Your task to perform on an android device: Open calendar and show me the second week of next month Image 0: 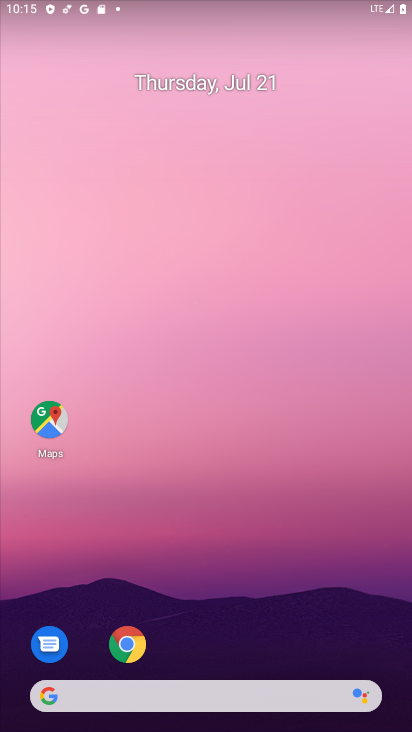
Step 0: drag from (228, 657) to (281, 56)
Your task to perform on an android device: Open calendar and show me the second week of next month Image 1: 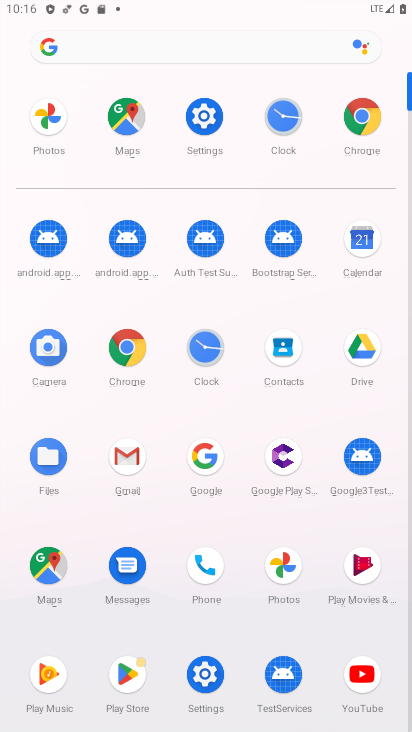
Step 1: click (364, 240)
Your task to perform on an android device: Open calendar and show me the second week of next month Image 2: 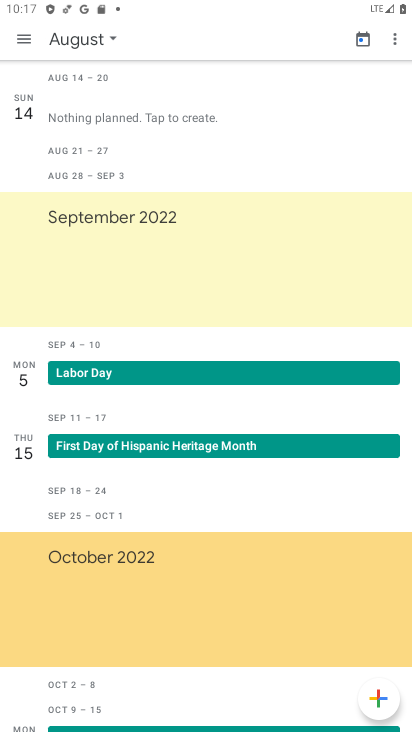
Step 2: click (113, 38)
Your task to perform on an android device: Open calendar and show me the second week of next month Image 3: 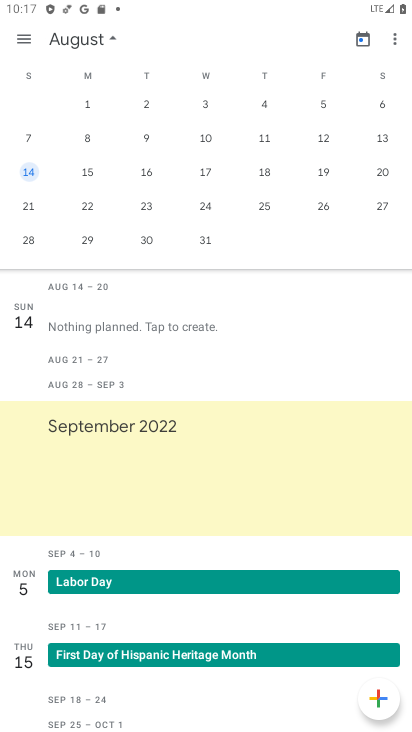
Step 3: click (28, 131)
Your task to perform on an android device: Open calendar and show me the second week of next month Image 4: 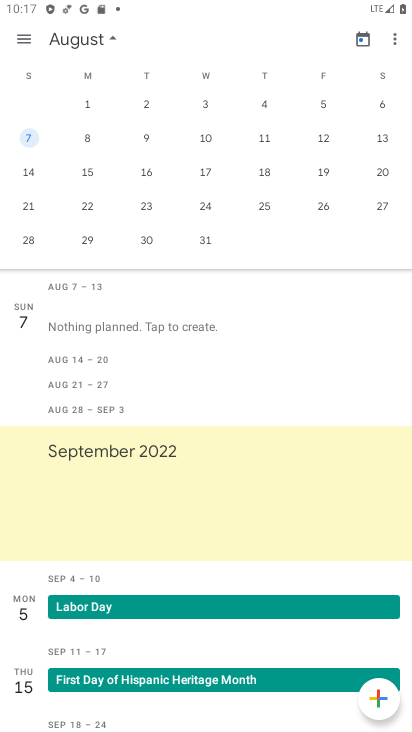
Step 4: click (112, 34)
Your task to perform on an android device: Open calendar and show me the second week of next month Image 5: 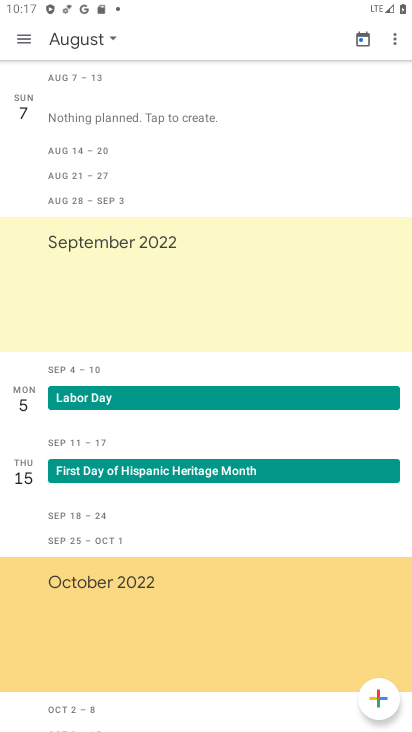
Step 5: click (13, 38)
Your task to perform on an android device: Open calendar and show me the second week of next month Image 6: 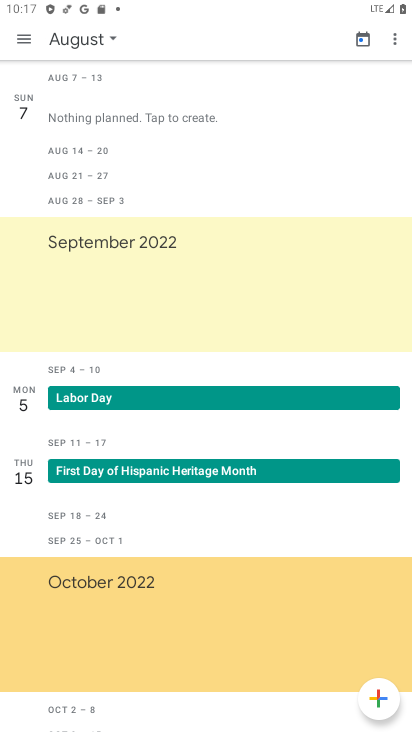
Step 6: click (24, 36)
Your task to perform on an android device: Open calendar and show me the second week of next month Image 7: 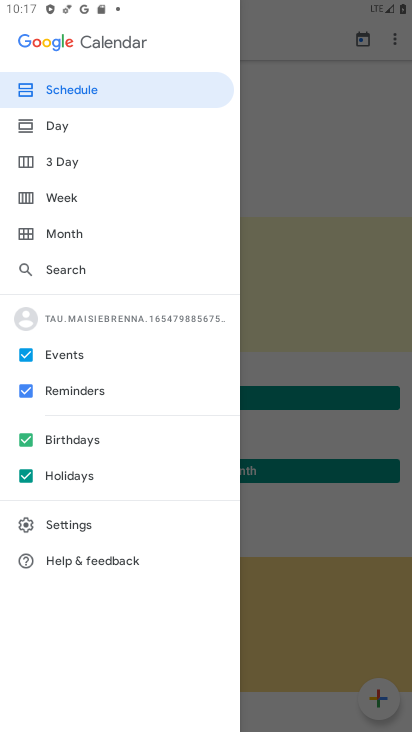
Step 7: click (48, 194)
Your task to perform on an android device: Open calendar and show me the second week of next month Image 8: 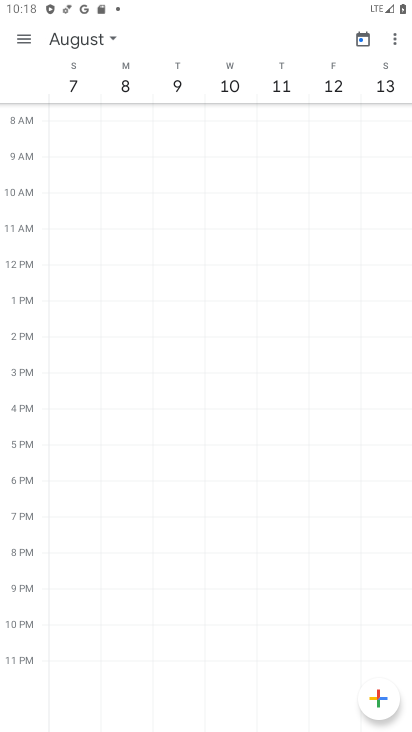
Step 8: task complete